Your task to perform on an android device: toggle show notifications on the lock screen Image 0: 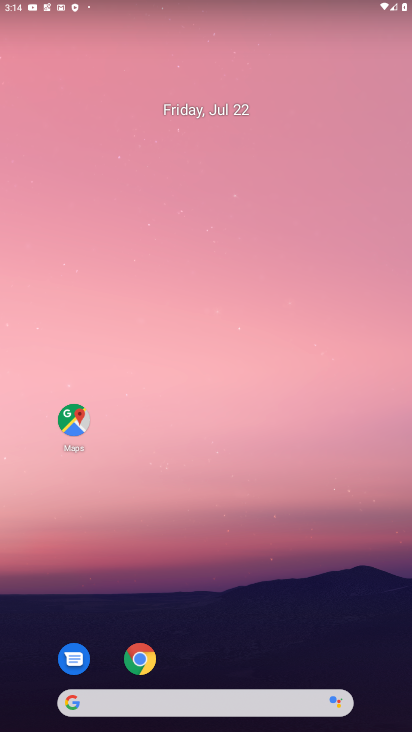
Step 0: drag from (227, 674) to (205, 103)
Your task to perform on an android device: toggle show notifications on the lock screen Image 1: 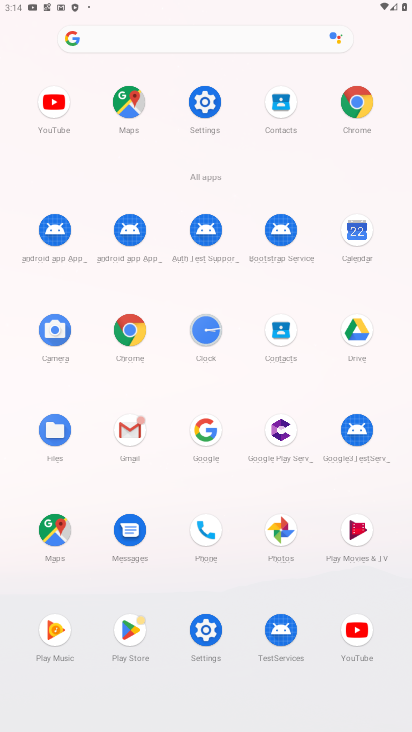
Step 1: click (205, 103)
Your task to perform on an android device: toggle show notifications on the lock screen Image 2: 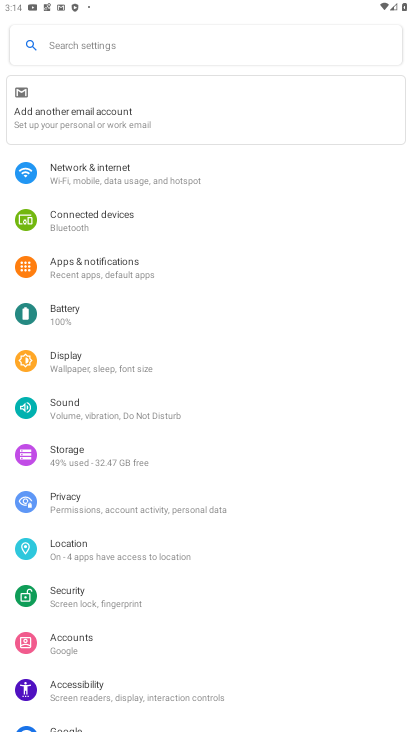
Step 2: click (97, 253)
Your task to perform on an android device: toggle show notifications on the lock screen Image 3: 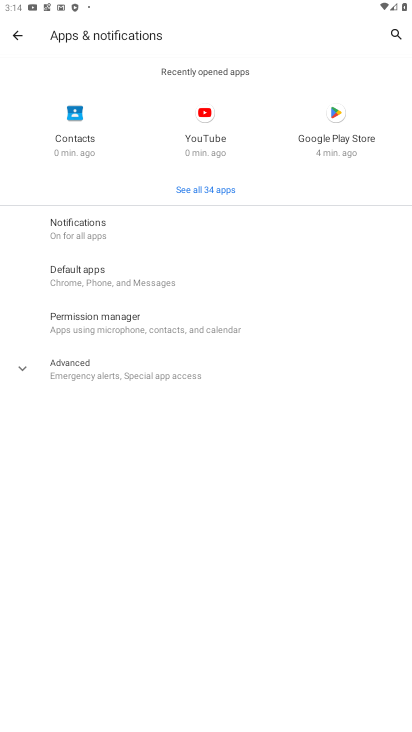
Step 3: click (84, 240)
Your task to perform on an android device: toggle show notifications on the lock screen Image 4: 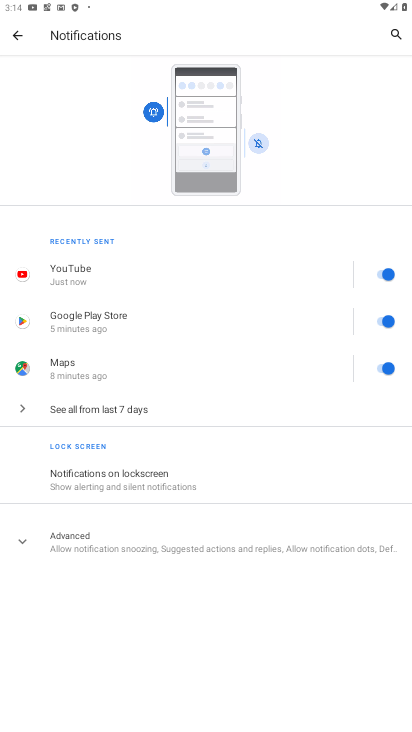
Step 4: click (95, 472)
Your task to perform on an android device: toggle show notifications on the lock screen Image 5: 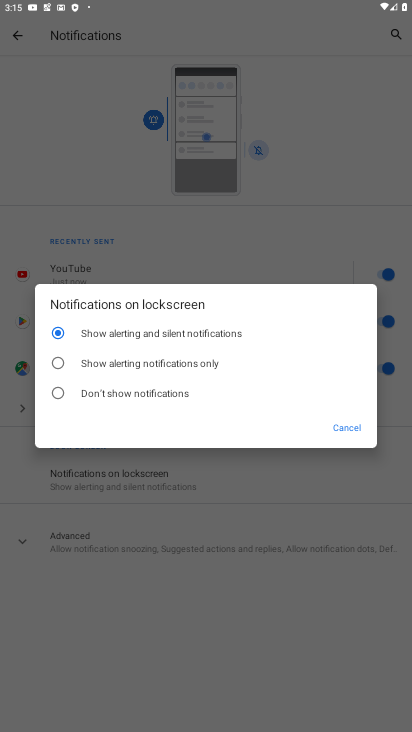
Step 5: click (159, 369)
Your task to perform on an android device: toggle show notifications on the lock screen Image 6: 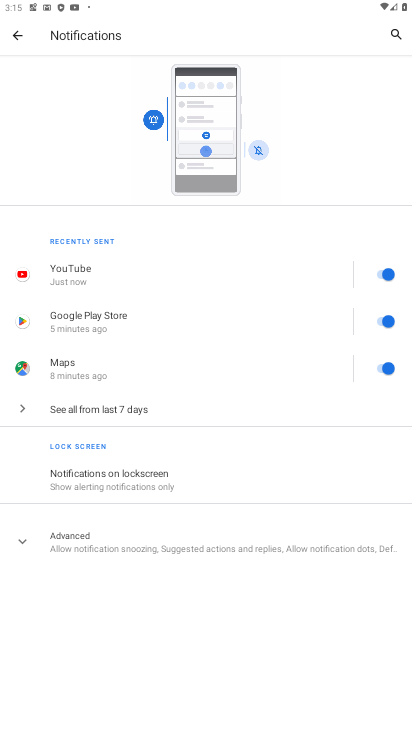
Step 6: task complete